Your task to perform on an android device: turn vacation reply on in the gmail app Image 0: 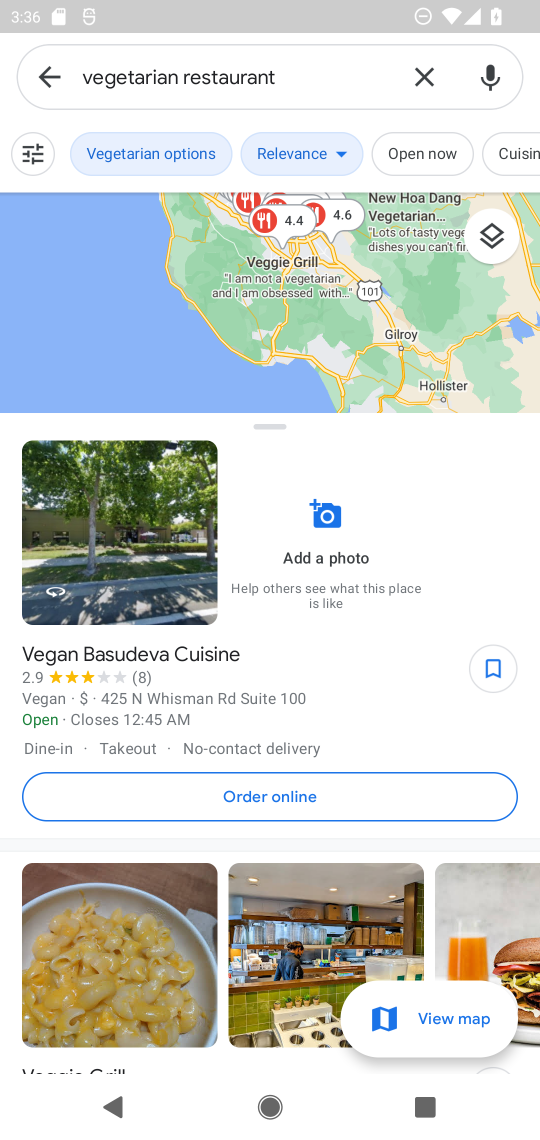
Step 0: press home button
Your task to perform on an android device: turn vacation reply on in the gmail app Image 1: 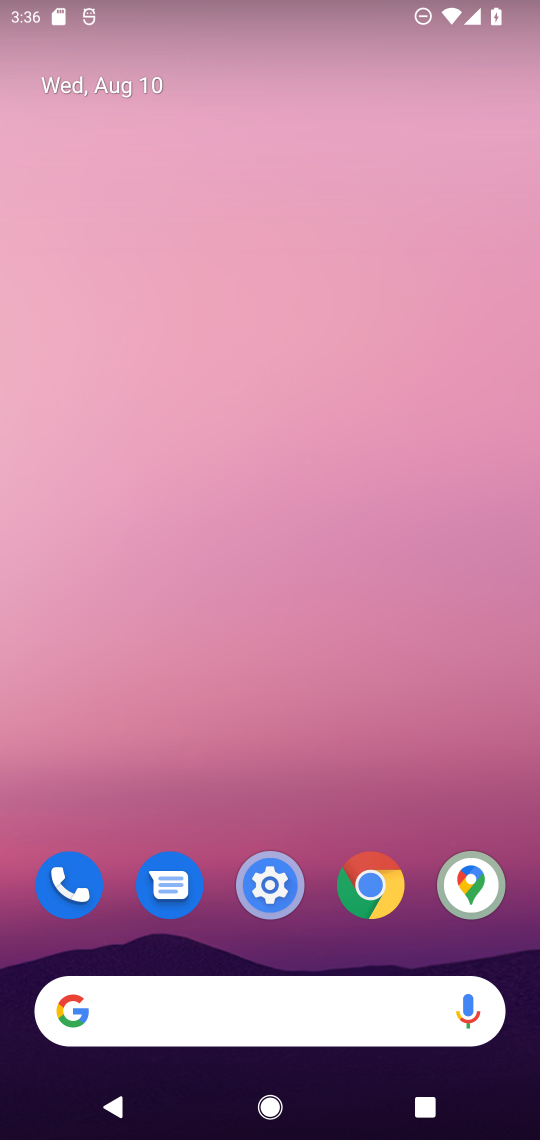
Step 1: drag from (310, 948) to (230, 233)
Your task to perform on an android device: turn vacation reply on in the gmail app Image 2: 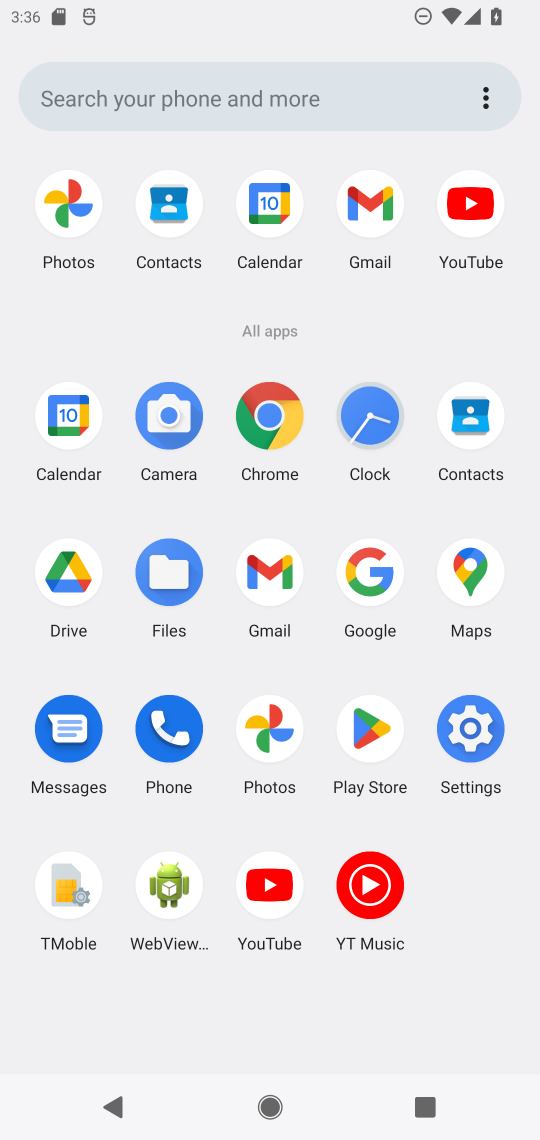
Step 2: click (370, 186)
Your task to perform on an android device: turn vacation reply on in the gmail app Image 3: 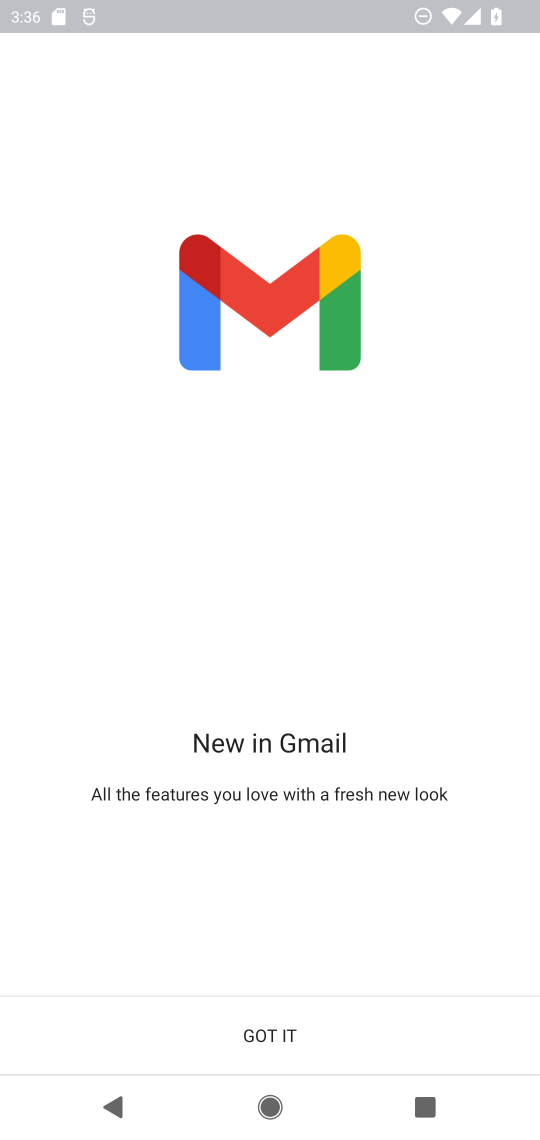
Step 3: click (282, 1028)
Your task to perform on an android device: turn vacation reply on in the gmail app Image 4: 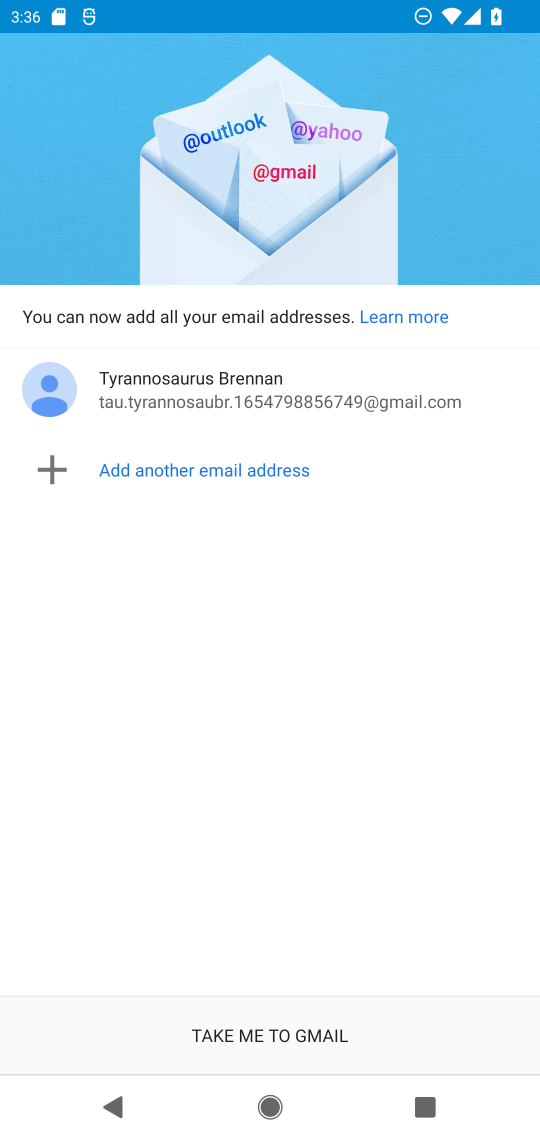
Step 4: click (282, 1028)
Your task to perform on an android device: turn vacation reply on in the gmail app Image 5: 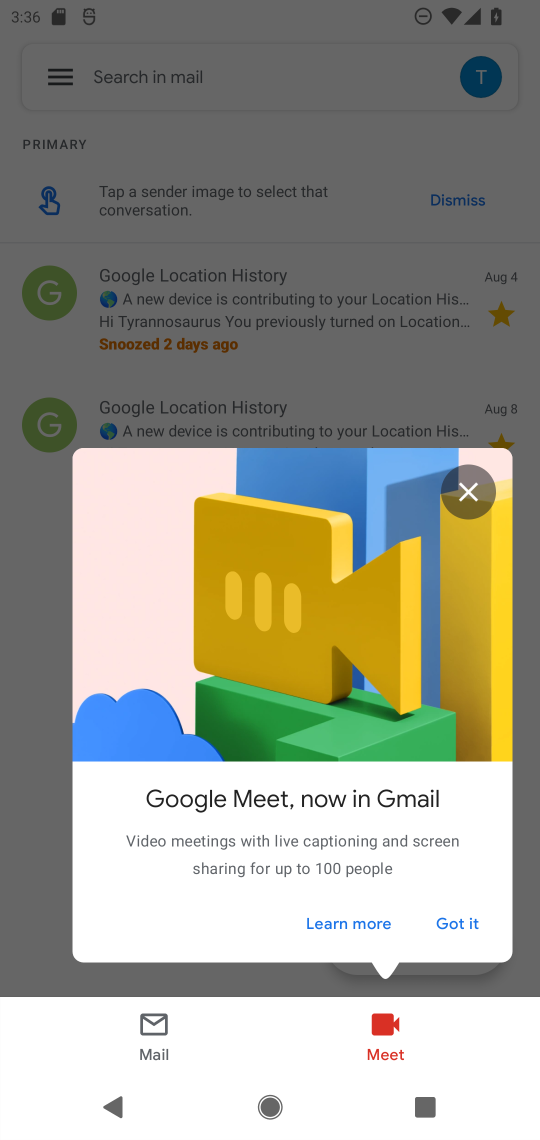
Step 5: click (477, 486)
Your task to perform on an android device: turn vacation reply on in the gmail app Image 6: 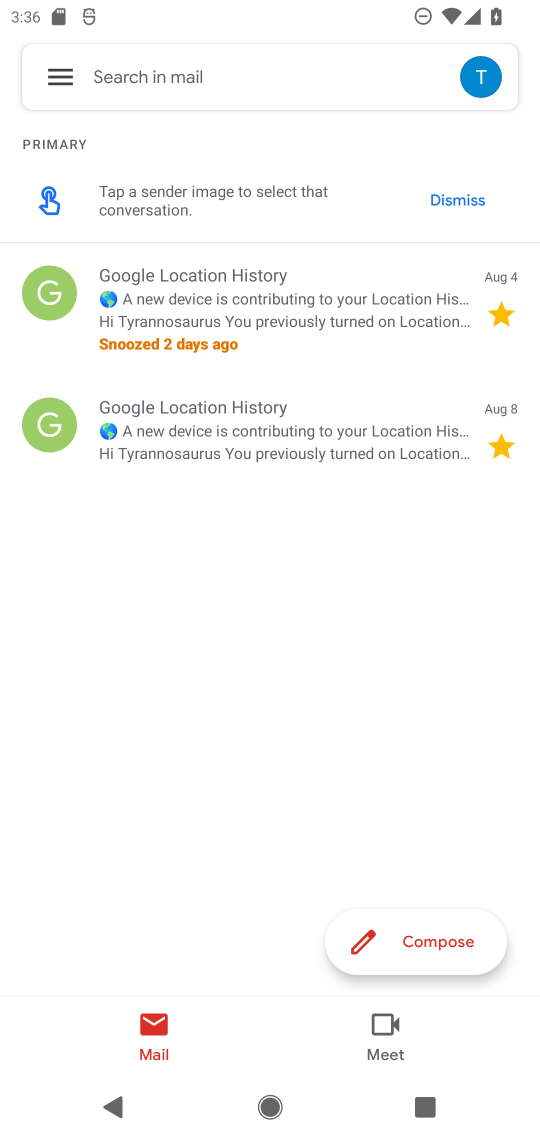
Step 6: click (62, 83)
Your task to perform on an android device: turn vacation reply on in the gmail app Image 7: 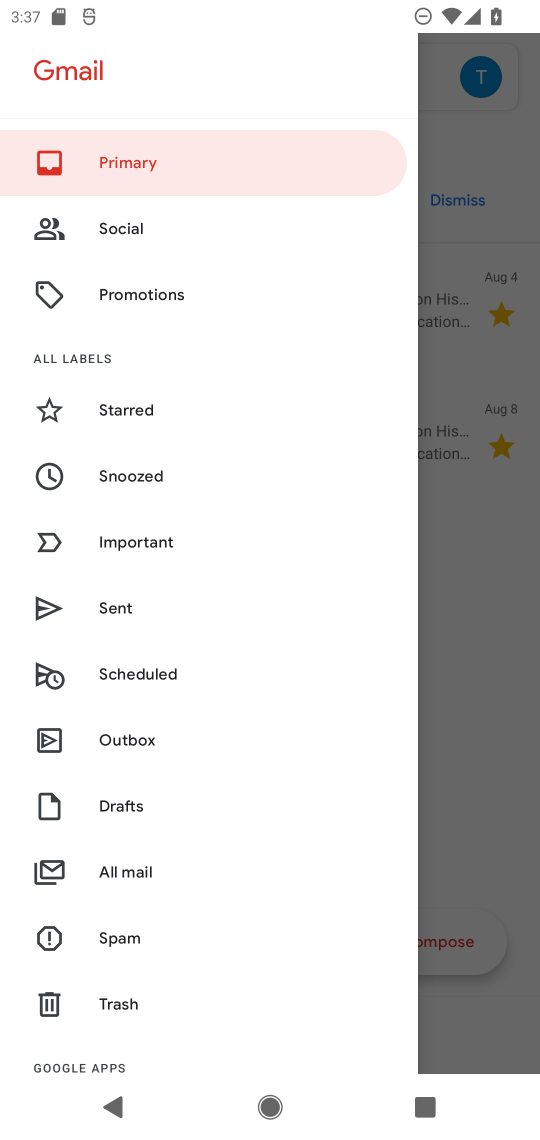
Step 7: drag from (254, 901) to (223, 277)
Your task to perform on an android device: turn vacation reply on in the gmail app Image 8: 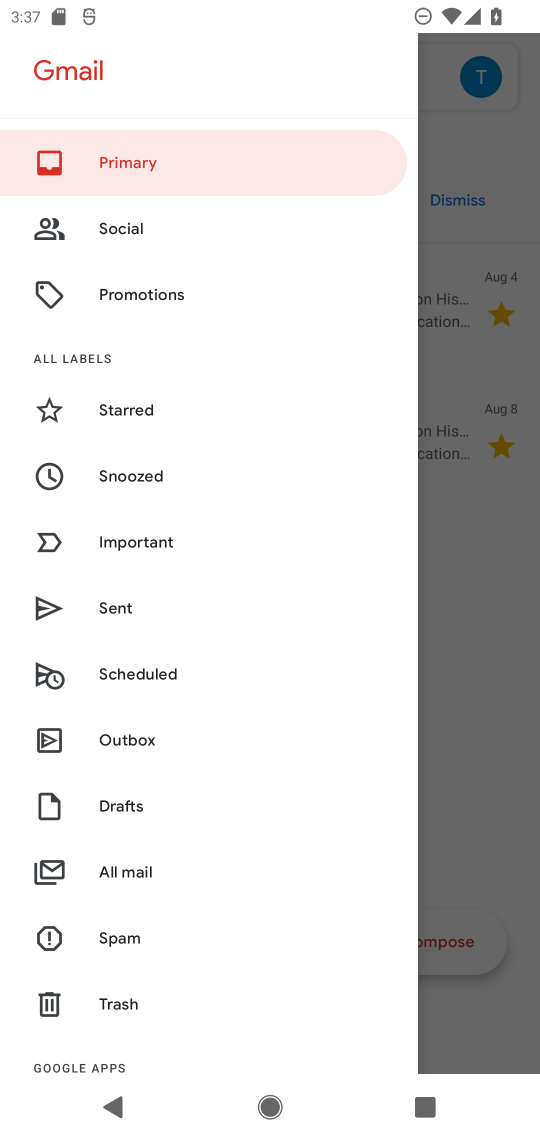
Step 8: drag from (206, 951) to (183, 357)
Your task to perform on an android device: turn vacation reply on in the gmail app Image 9: 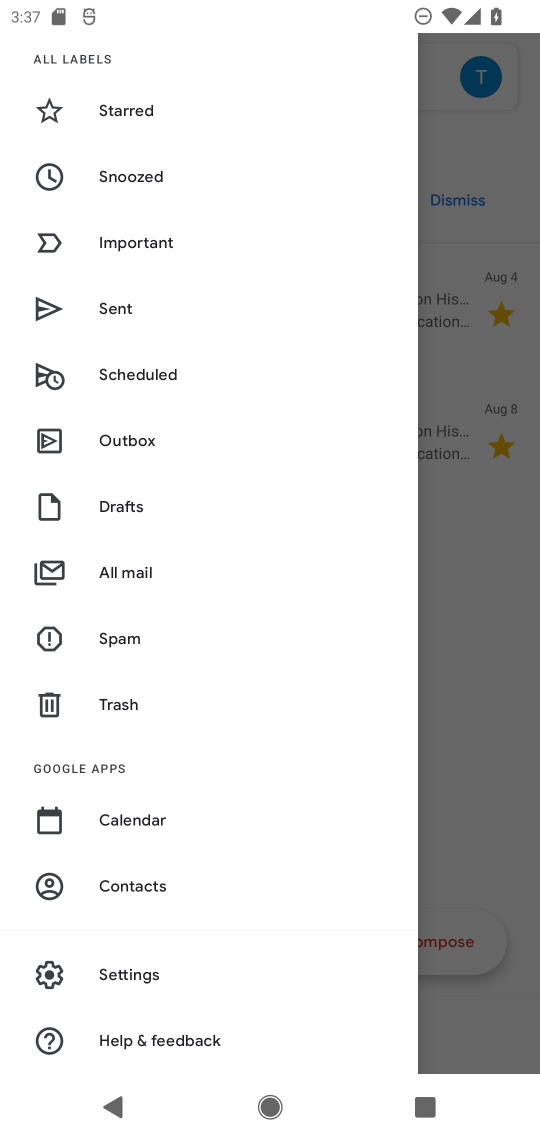
Step 9: click (130, 966)
Your task to perform on an android device: turn vacation reply on in the gmail app Image 10: 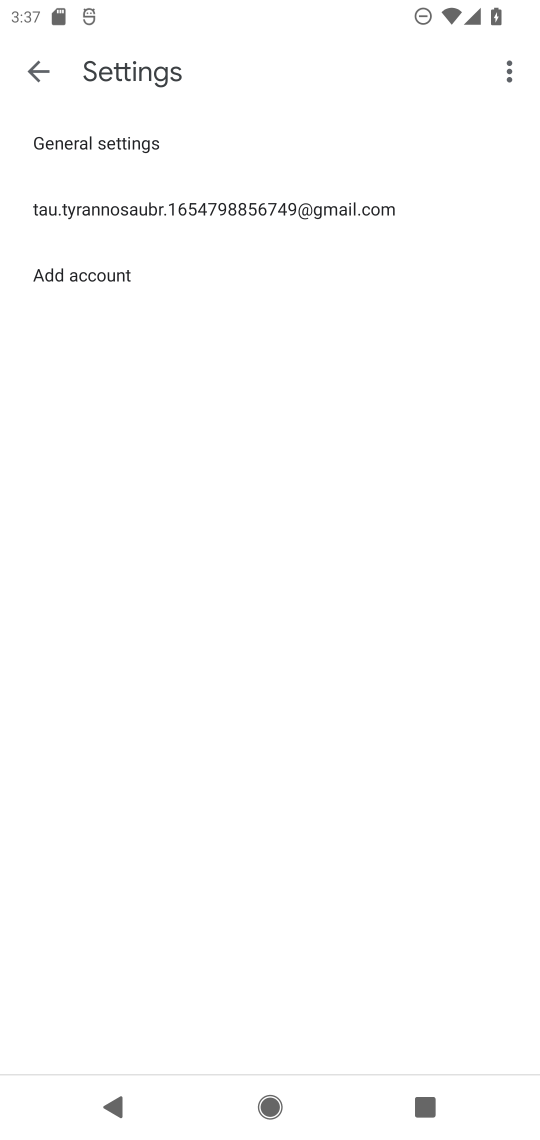
Step 10: click (78, 204)
Your task to perform on an android device: turn vacation reply on in the gmail app Image 11: 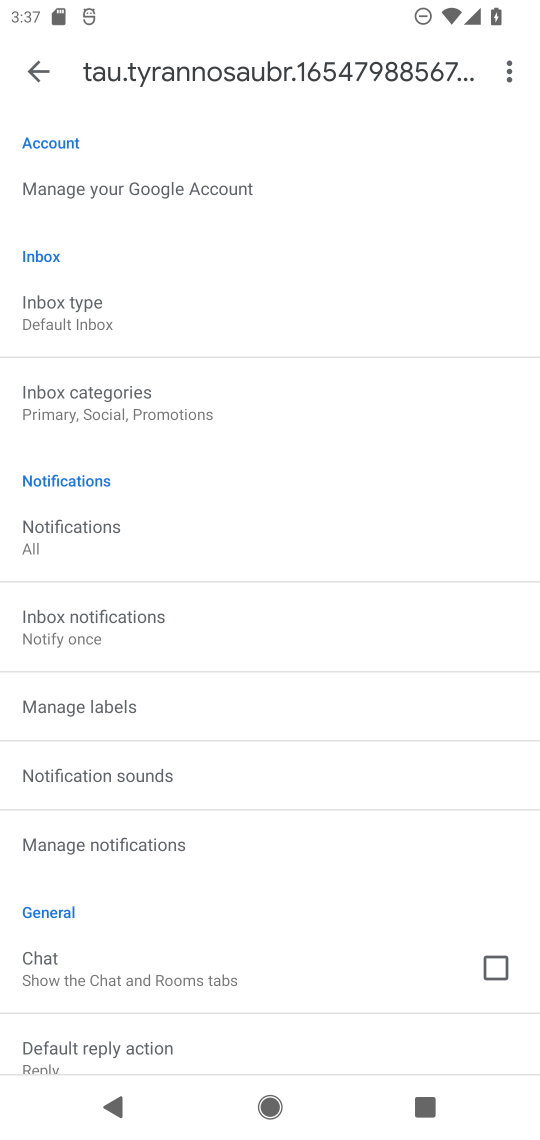
Step 11: drag from (274, 944) to (274, 301)
Your task to perform on an android device: turn vacation reply on in the gmail app Image 12: 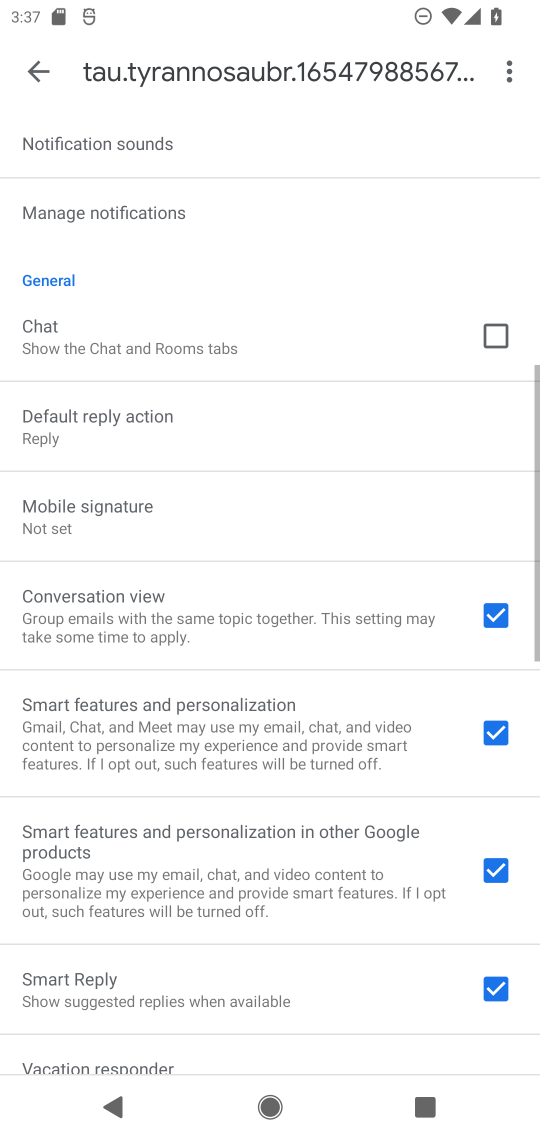
Step 12: drag from (286, 968) to (280, 401)
Your task to perform on an android device: turn vacation reply on in the gmail app Image 13: 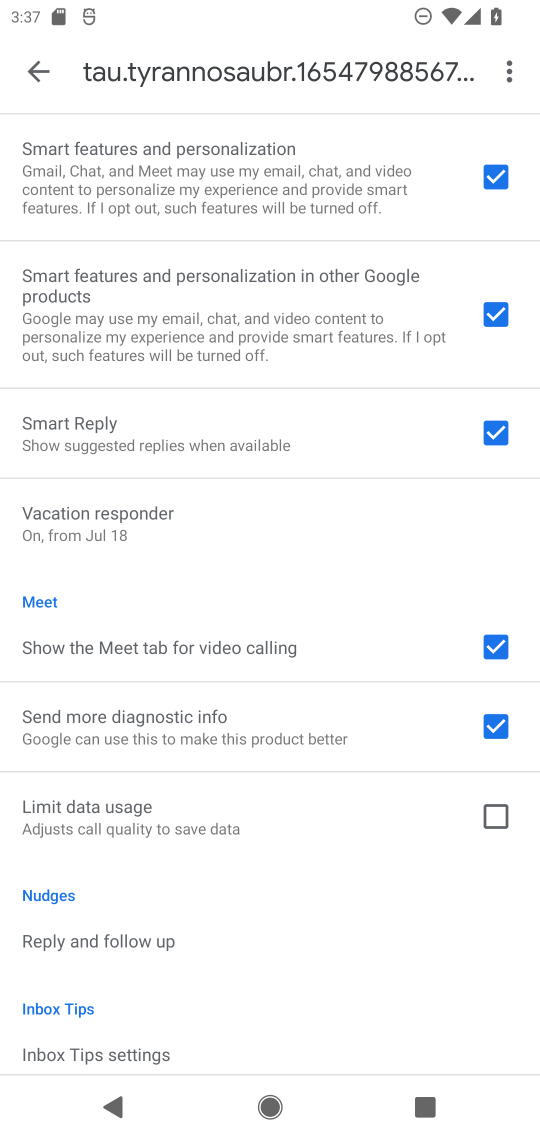
Step 13: click (81, 514)
Your task to perform on an android device: turn vacation reply on in the gmail app Image 14: 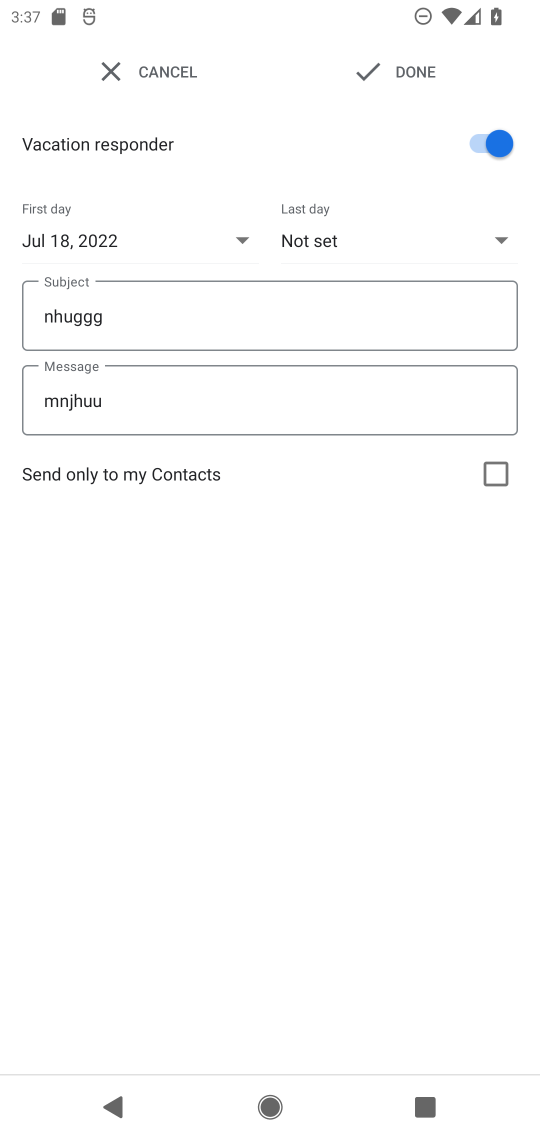
Step 14: task complete